Your task to perform on an android device: turn off airplane mode Image 0: 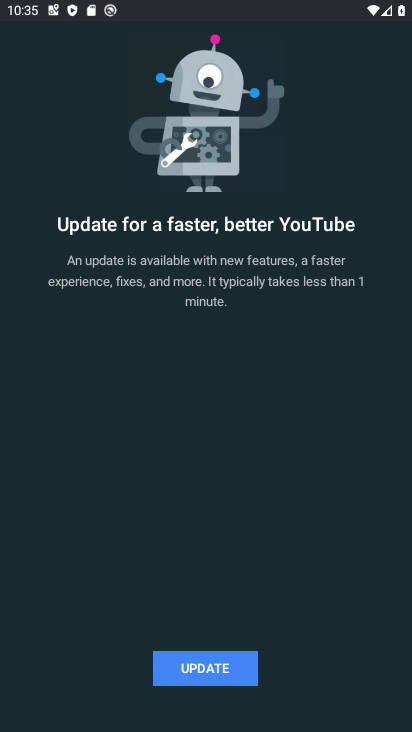
Step 0: press home button
Your task to perform on an android device: turn off airplane mode Image 1: 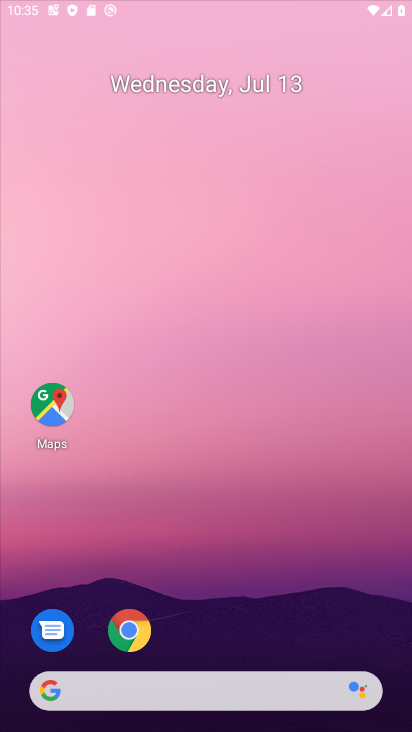
Step 1: drag from (323, 585) to (400, 2)
Your task to perform on an android device: turn off airplane mode Image 2: 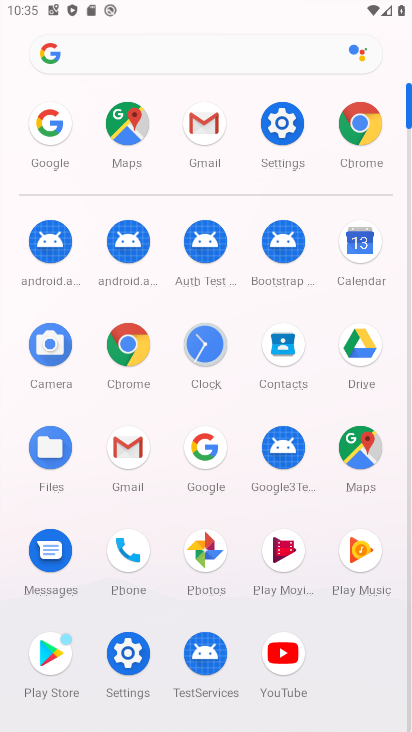
Step 2: click (273, 127)
Your task to perform on an android device: turn off airplane mode Image 3: 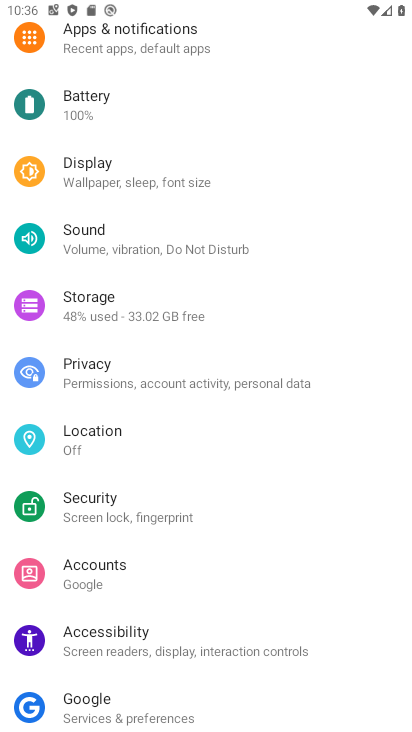
Step 3: drag from (151, 91) to (208, 532)
Your task to perform on an android device: turn off airplane mode Image 4: 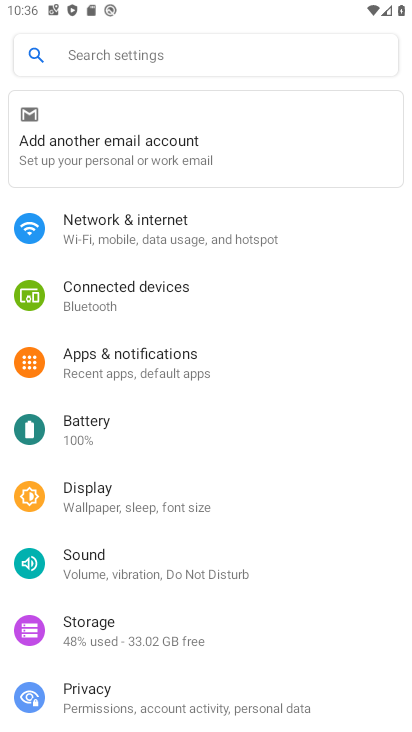
Step 4: click (158, 216)
Your task to perform on an android device: turn off airplane mode Image 5: 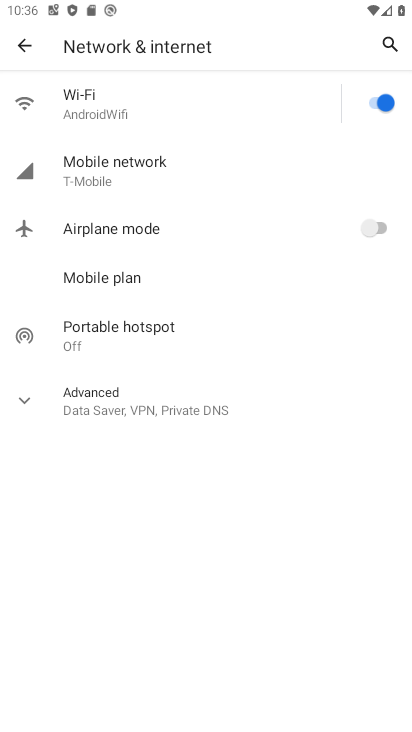
Step 5: task complete